Your task to perform on an android device: add a label to a message in the gmail app Image 0: 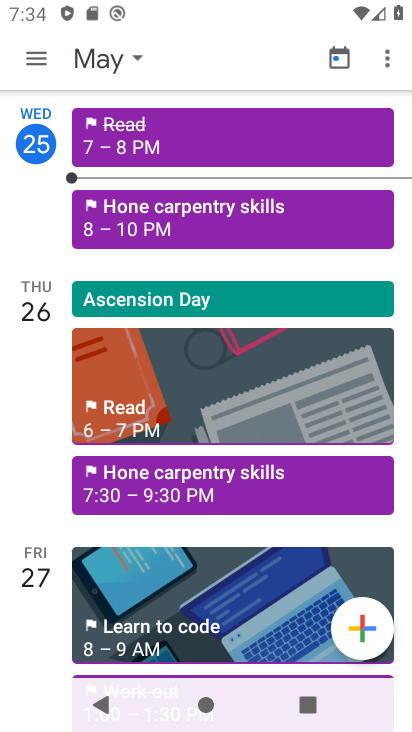
Step 0: press home button
Your task to perform on an android device: add a label to a message in the gmail app Image 1: 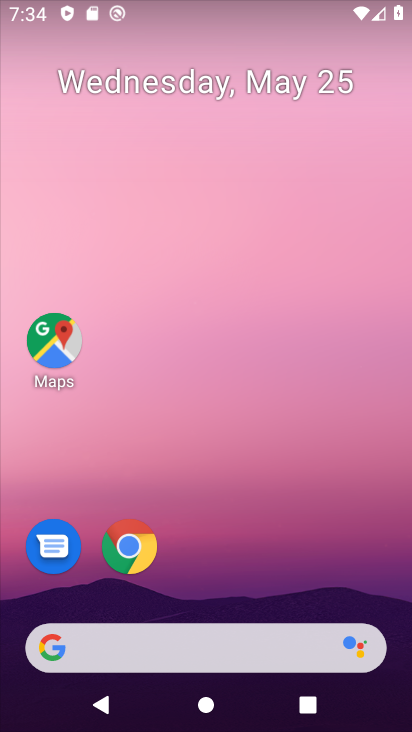
Step 1: drag from (392, 556) to (383, 203)
Your task to perform on an android device: add a label to a message in the gmail app Image 2: 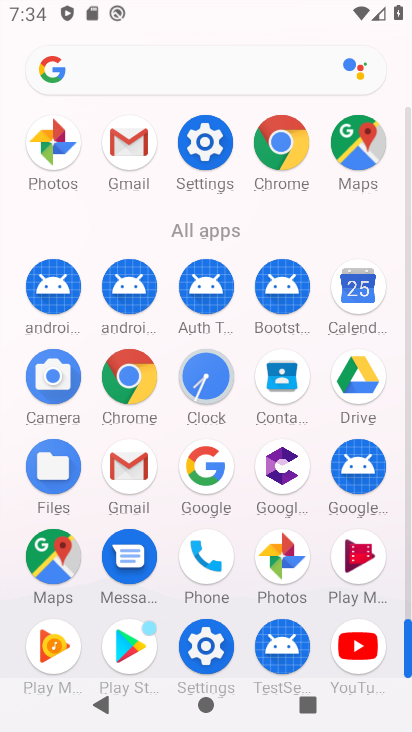
Step 2: click (133, 485)
Your task to perform on an android device: add a label to a message in the gmail app Image 3: 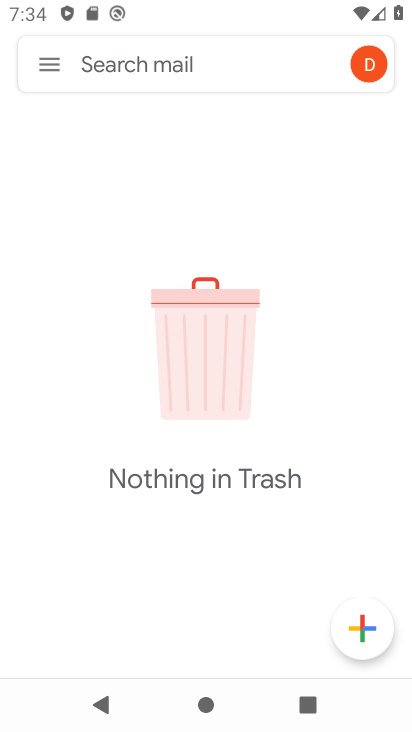
Step 3: click (57, 61)
Your task to perform on an android device: add a label to a message in the gmail app Image 4: 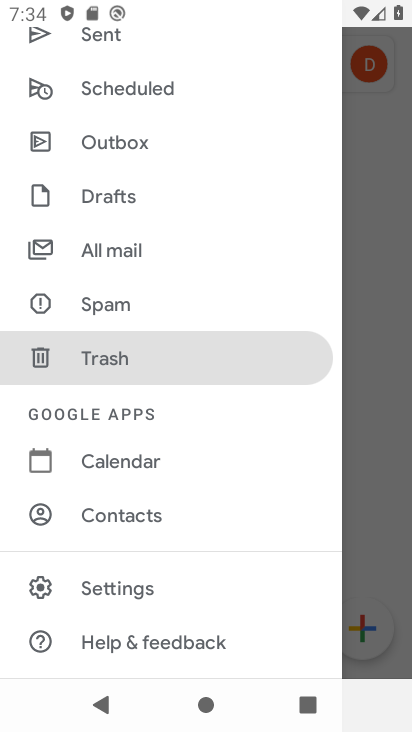
Step 4: drag from (247, 321) to (249, 374)
Your task to perform on an android device: add a label to a message in the gmail app Image 5: 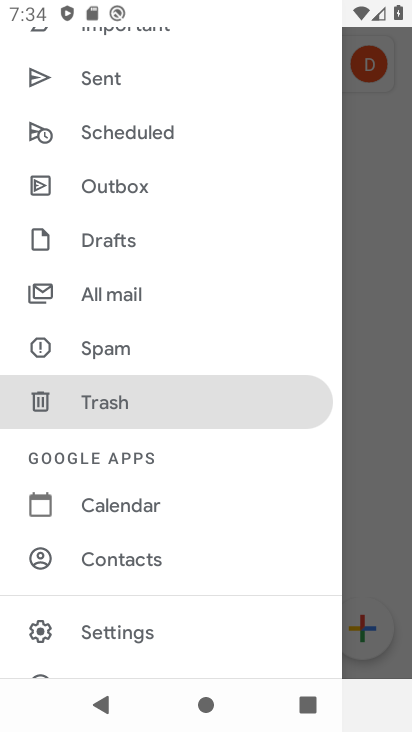
Step 5: drag from (252, 279) to (255, 347)
Your task to perform on an android device: add a label to a message in the gmail app Image 6: 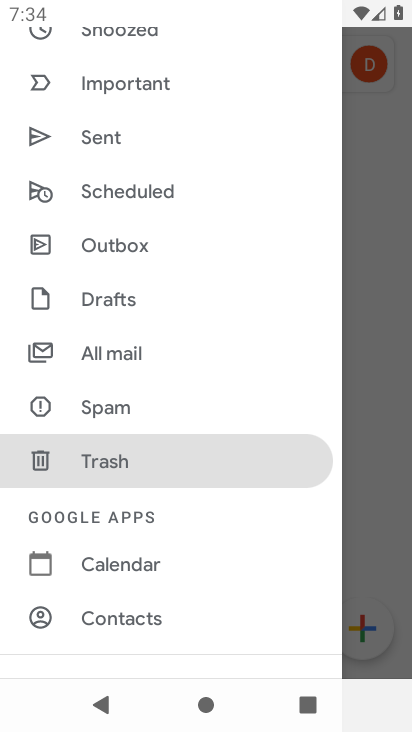
Step 6: drag from (253, 275) to (251, 338)
Your task to perform on an android device: add a label to a message in the gmail app Image 7: 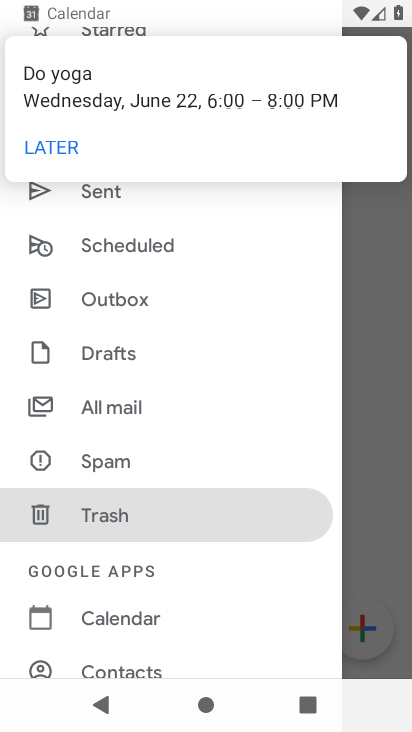
Step 7: drag from (259, 248) to (250, 337)
Your task to perform on an android device: add a label to a message in the gmail app Image 8: 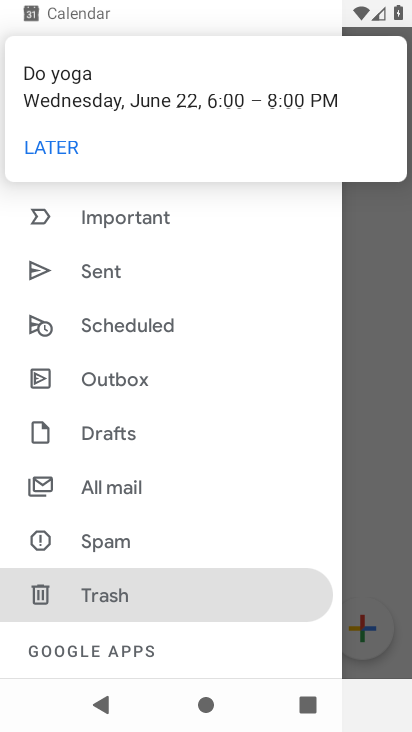
Step 8: drag from (247, 267) to (251, 346)
Your task to perform on an android device: add a label to a message in the gmail app Image 9: 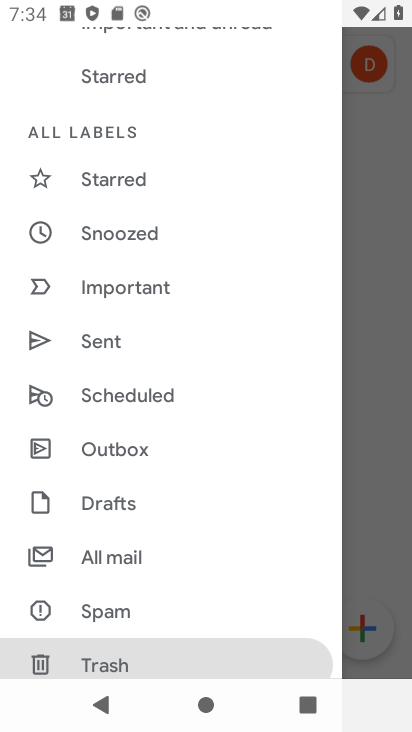
Step 9: drag from (246, 247) to (250, 325)
Your task to perform on an android device: add a label to a message in the gmail app Image 10: 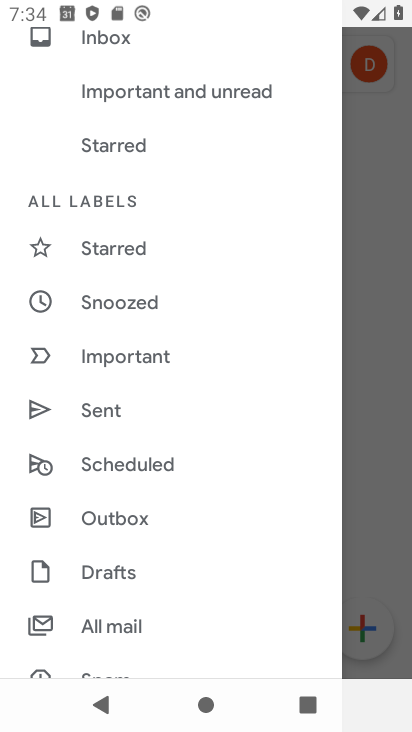
Step 10: drag from (243, 208) to (258, 331)
Your task to perform on an android device: add a label to a message in the gmail app Image 11: 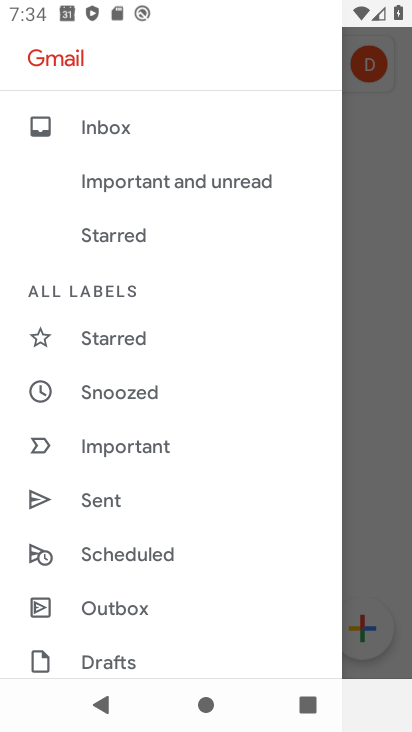
Step 11: drag from (253, 256) to (249, 323)
Your task to perform on an android device: add a label to a message in the gmail app Image 12: 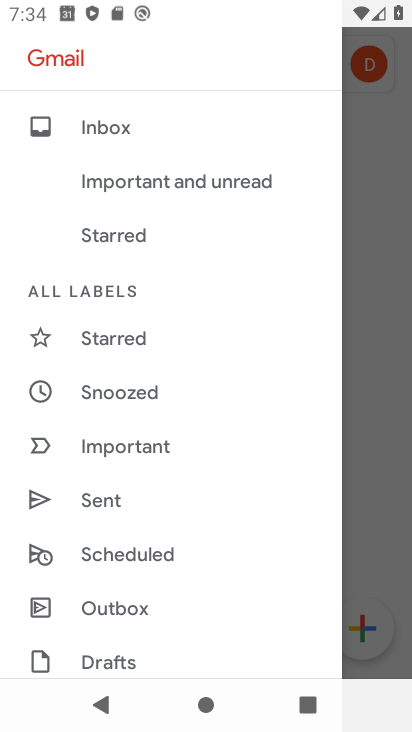
Step 12: click (133, 135)
Your task to perform on an android device: add a label to a message in the gmail app Image 13: 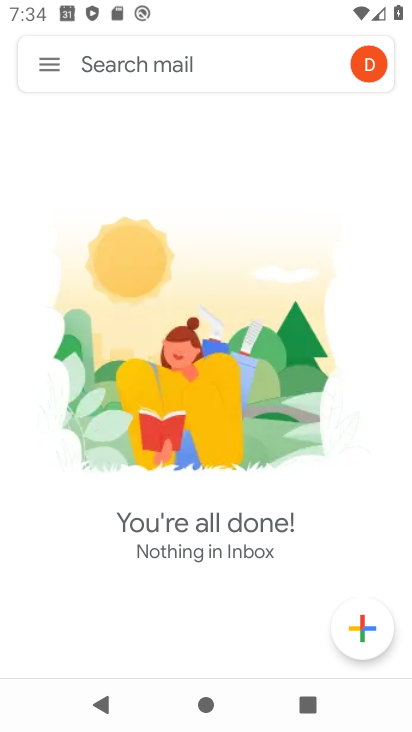
Step 13: task complete